Your task to perform on an android device: toggle pop-ups in chrome Image 0: 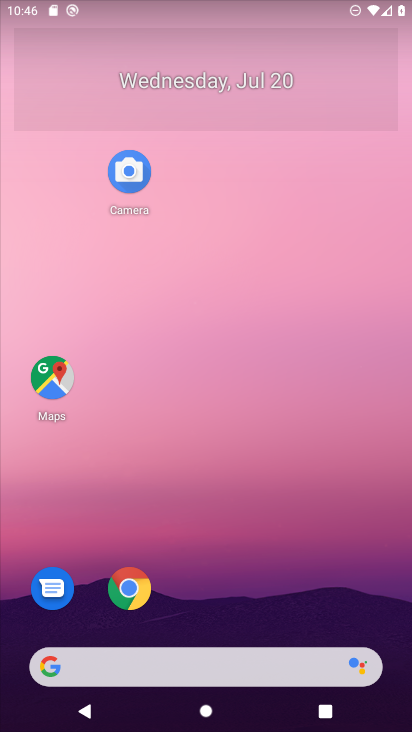
Step 0: press home button
Your task to perform on an android device: toggle pop-ups in chrome Image 1: 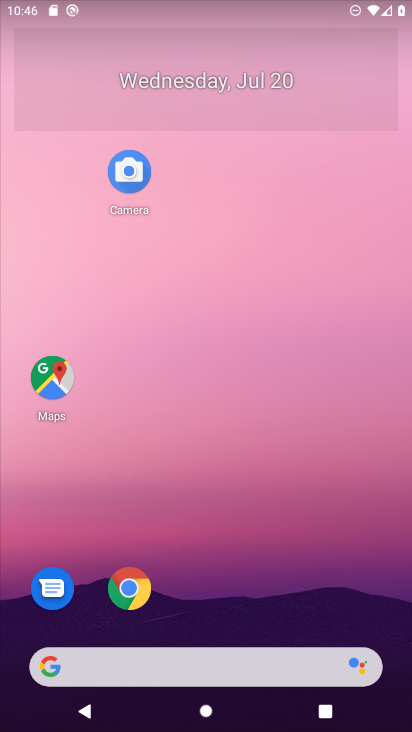
Step 1: click (134, 592)
Your task to perform on an android device: toggle pop-ups in chrome Image 2: 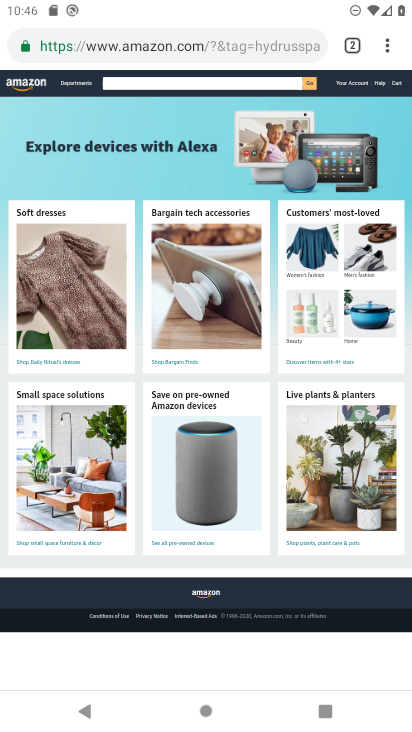
Step 2: drag from (382, 45) to (233, 539)
Your task to perform on an android device: toggle pop-ups in chrome Image 3: 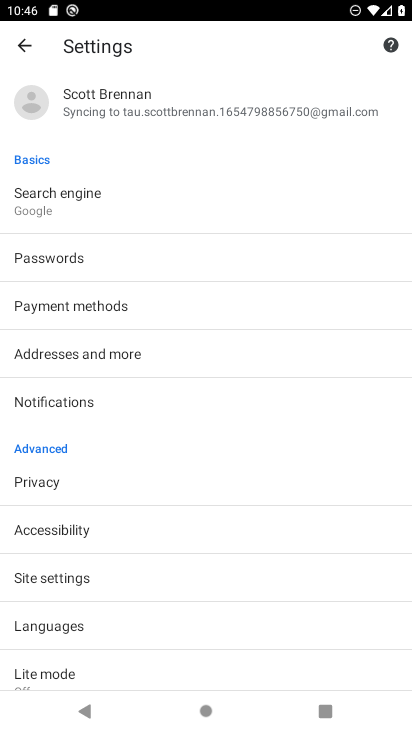
Step 3: click (59, 575)
Your task to perform on an android device: toggle pop-ups in chrome Image 4: 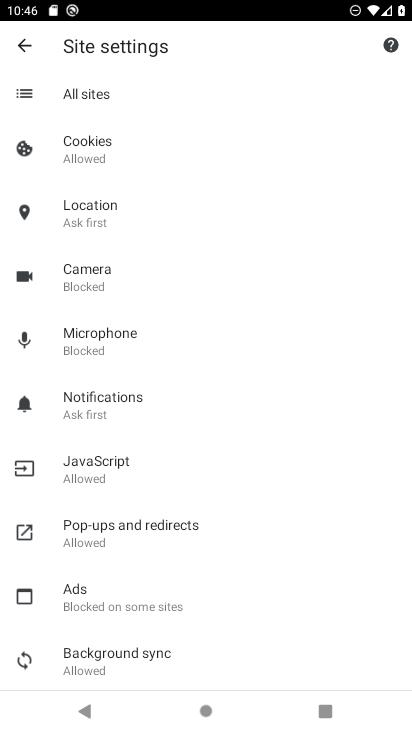
Step 4: click (160, 532)
Your task to perform on an android device: toggle pop-ups in chrome Image 5: 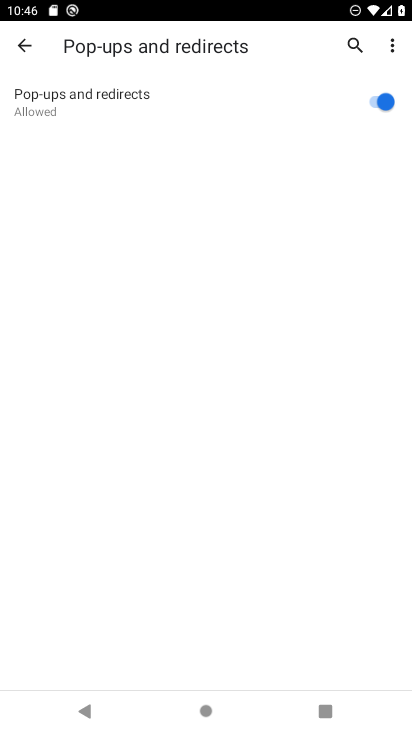
Step 5: click (380, 101)
Your task to perform on an android device: toggle pop-ups in chrome Image 6: 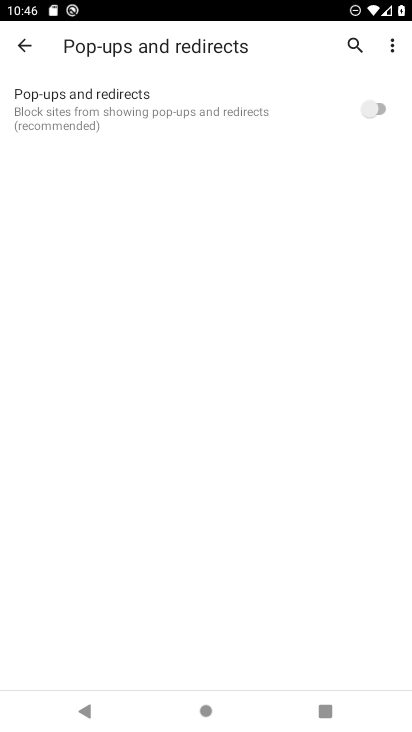
Step 6: task complete